Your task to perform on an android device: turn off javascript in the chrome app Image 0: 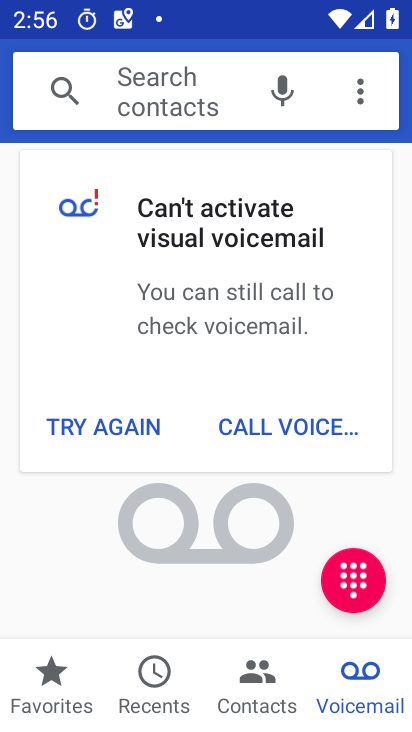
Step 0: press home button
Your task to perform on an android device: turn off javascript in the chrome app Image 1: 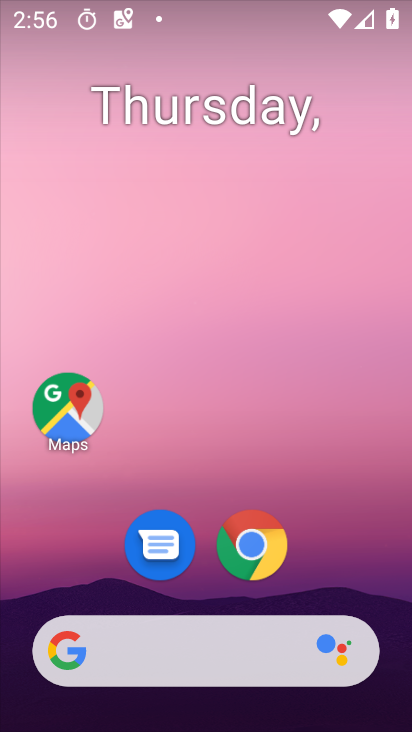
Step 1: click (249, 552)
Your task to perform on an android device: turn off javascript in the chrome app Image 2: 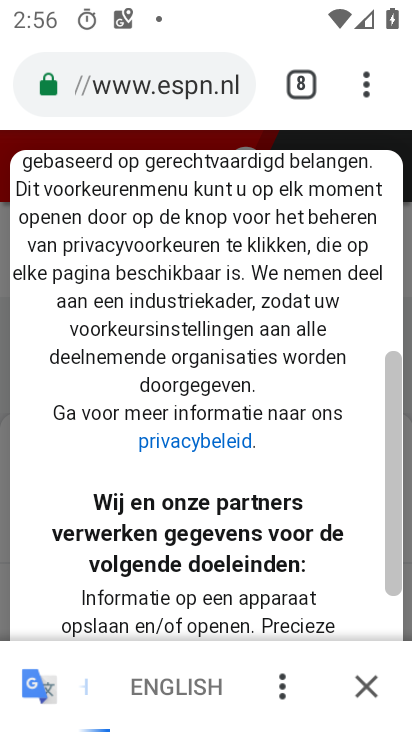
Step 2: click (368, 92)
Your task to perform on an android device: turn off javascript in the chrome app Image 3: 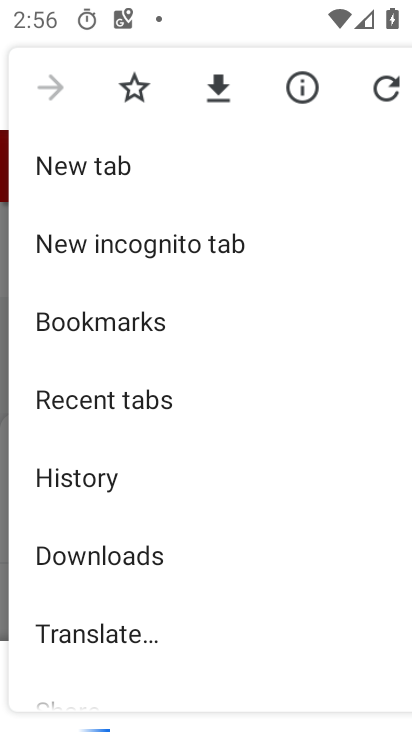
Step 3: drag from (129, 668) to (142, 221)
Your task to perform on an android device: turn off javascript in the chrome app Image 4: 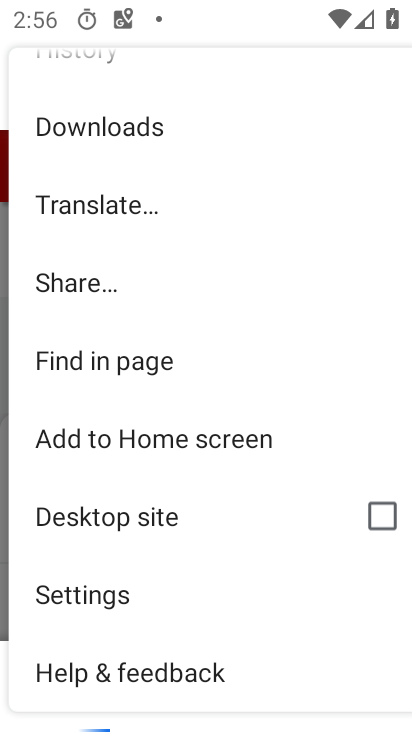
Step 4: click (63, 592)
Your task to perform on an android device: turn off javascript in the chrome app Image 5: 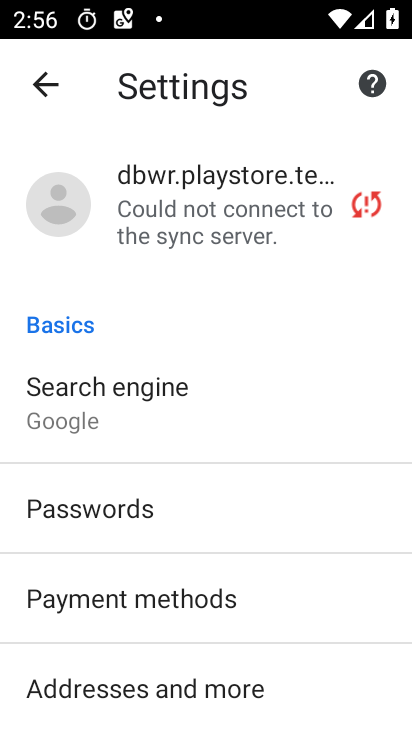
Step 5: drag from (74, 671) to (127, 275)
Your task to perform on an android device: turn off javascript in the chrome app Image 6: 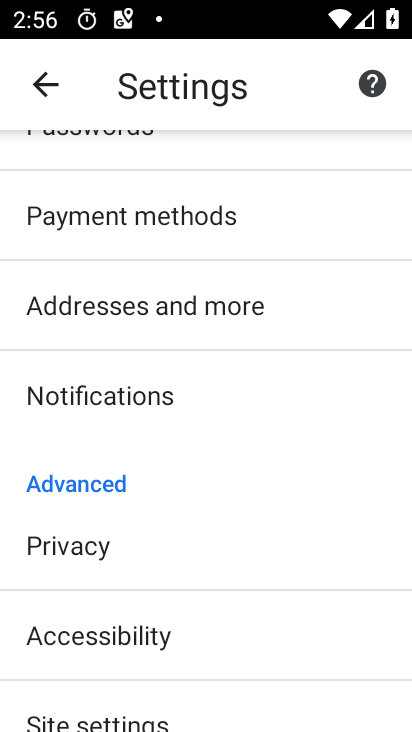
Step 6: drag from (156, 673) to (161, 251)
Your task to perform on an android device: turn off javascript in the chrome app Image 7: 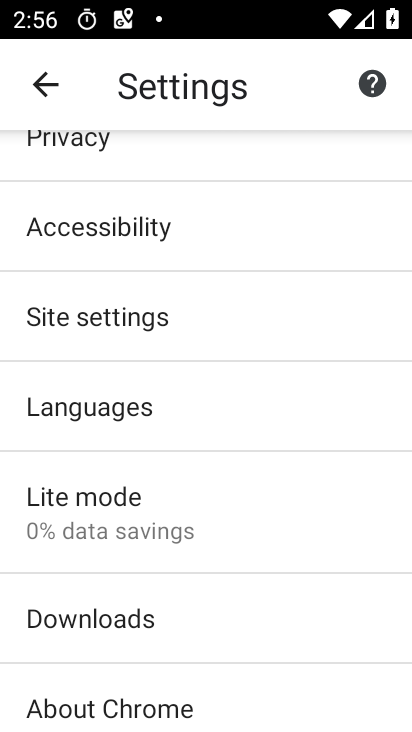
Step 7: click (143, 314)
Your task to perform on an android device: turn off javascript in the chrome app Image 8: 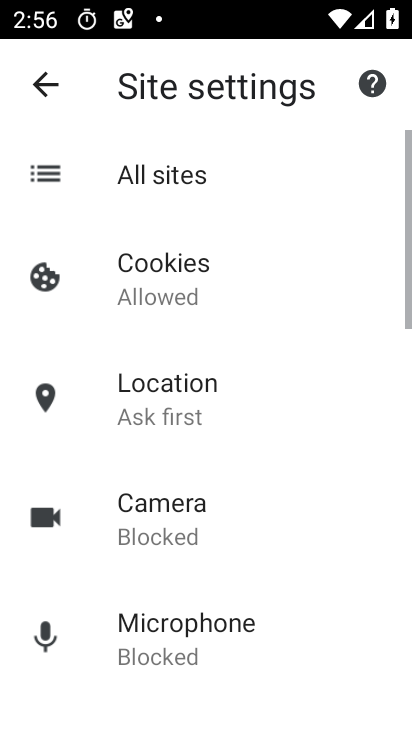
Step 8: drag from (171, 693) to (180, 266)
Your task to perform on an android device: turn off javascript in the chrome app Image 9: 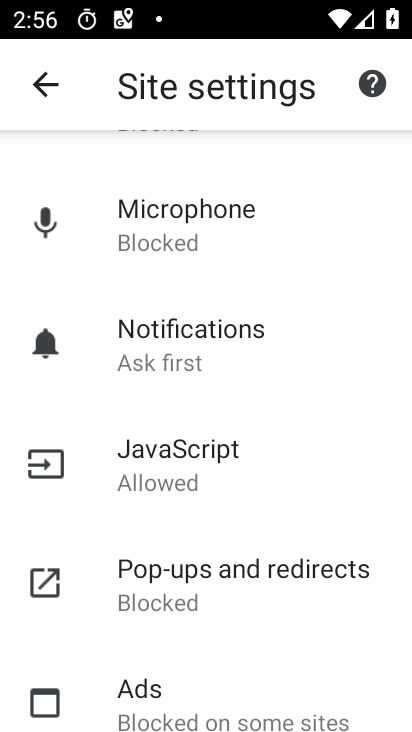
Step 9: click (157, 478)
Your task to perform on an android device: turn off javascript in the chrome app Image 10: 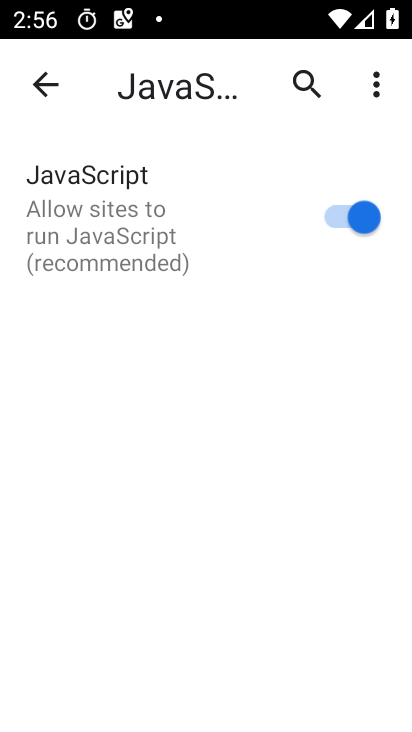
Step 10: click (338, 219)
Your task to perform on an android device: turn off javascript in the chrome app Image 11: 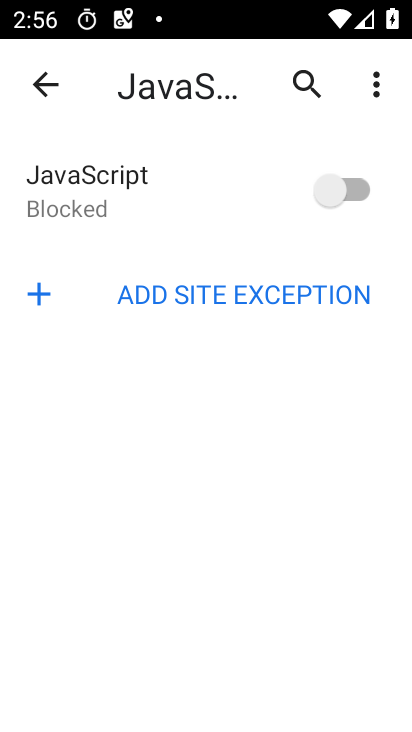
Step 11: task complete